Your task to perform on an android device: Open Youtube and go to the subscriptions tab Image 0: 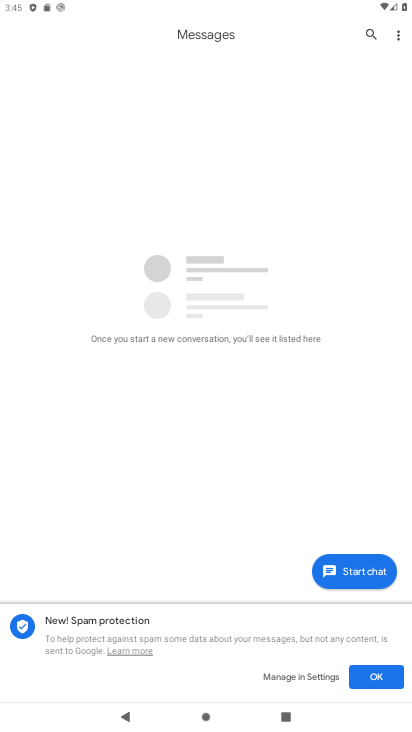
Step 0: press home button
Your task to perform on an android device: Open Youtube and go to the subscriptions tab Image 1: 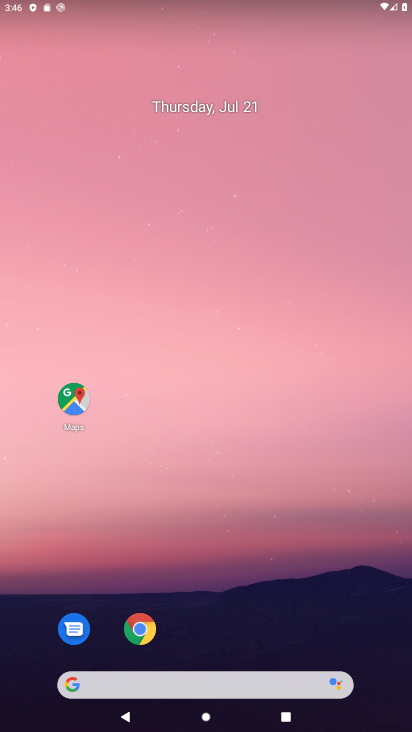
Step 1: drag from (351, 649) to (208, 31)
Your task to perform on an android device: Open Youtube and go to the subscriptions tab Image 2: 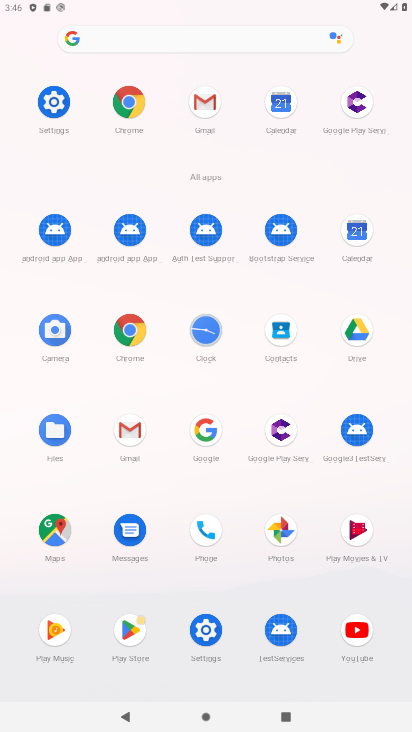
Step 2: click (360, 634)
Your task to perform on an android device: Open Youtube and go to the subscriptions tab Image 3: 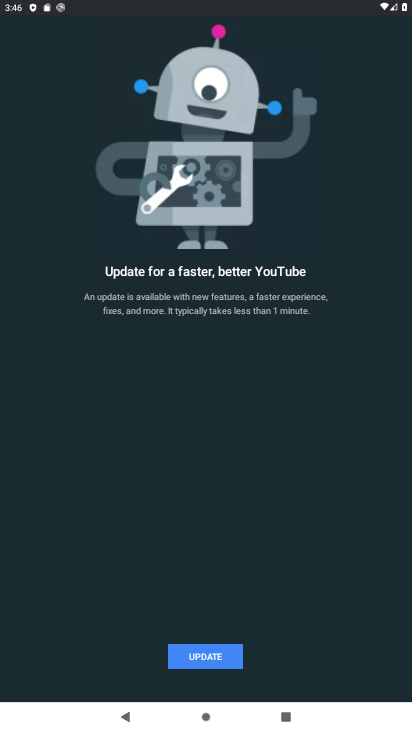
Step 3: click (221, 651)
Your task to perform on an android device: Open Youtube and go to the subscriptions tab Image 4: 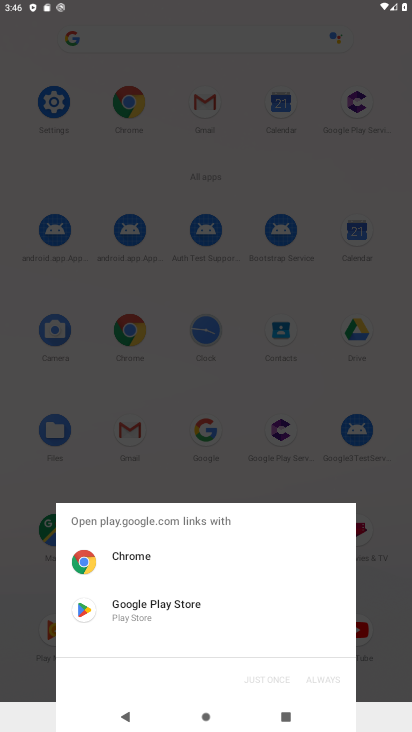
Step 4: click (236, 626)
Your task to perform on an android device: Open Youtube and go to the subscriptions tab Image 5: 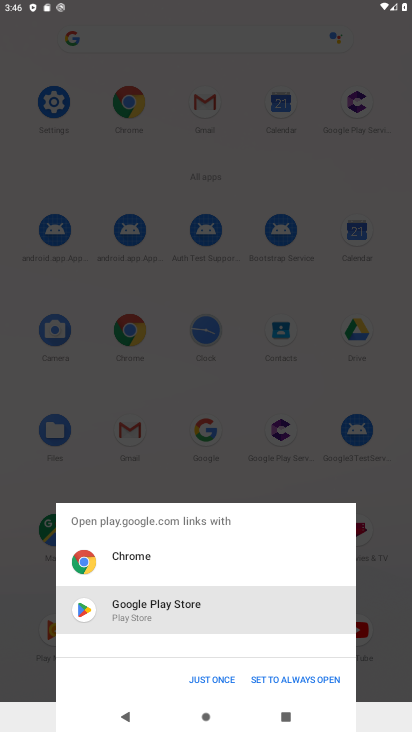
Step 5: click (212, 681)
Your task to perform on an android device: Open Youtube and go to the subscriptions tab Image 6: 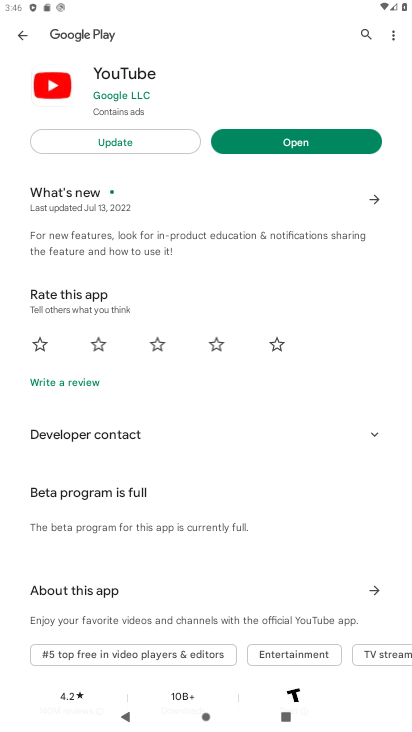
Step 6: click (141, 141)
Your task to perform on an android device: Open Youtube and go to the subscriptions tab Image 7: 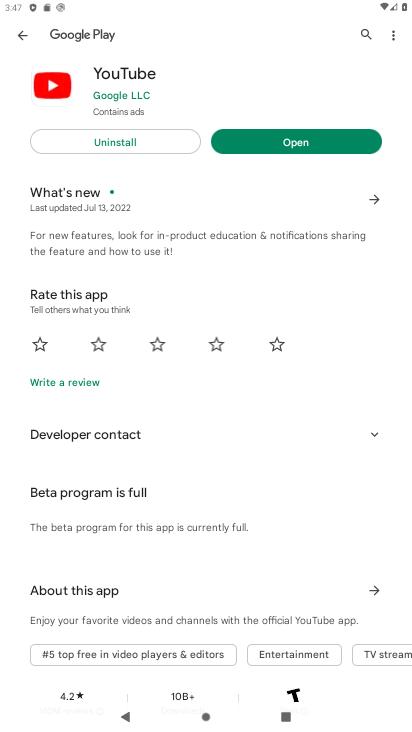
Step 7: click (302, 141)
Your task to perform on an android device: Open Youtube and go to the subscriptions tab Image 8: 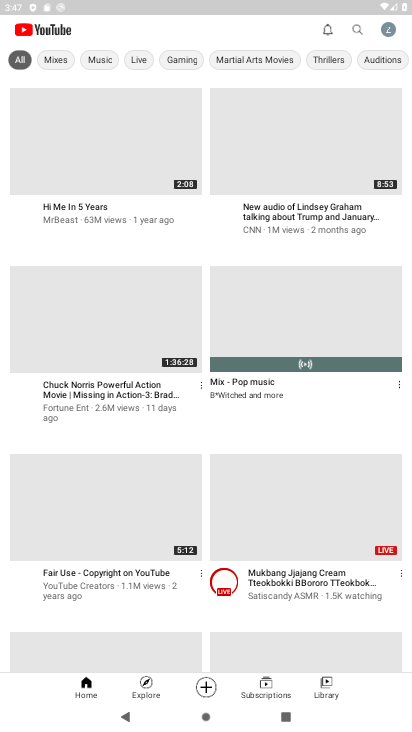
Step 8: click (255, 694)
Your task to perform on an android device: Open Youtube and go to the subscriptions tab Image 9: 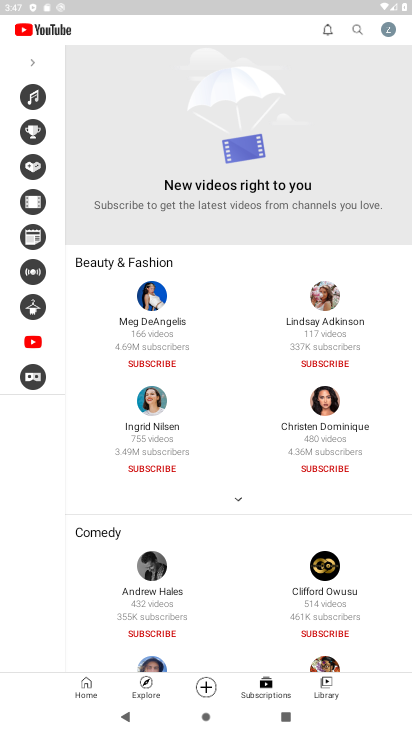
Step 9: task complete